Your task to perform on an android device: Open CNN.com Image 0: 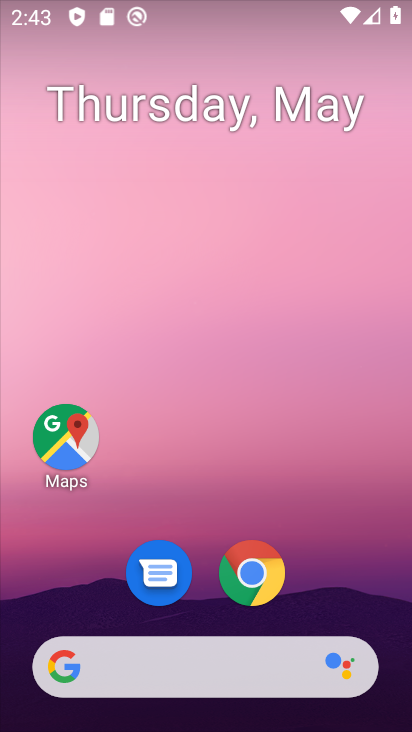
Step 0: click (253, 581)
Your task to perform on an android device: Open CNN.com Image 1: 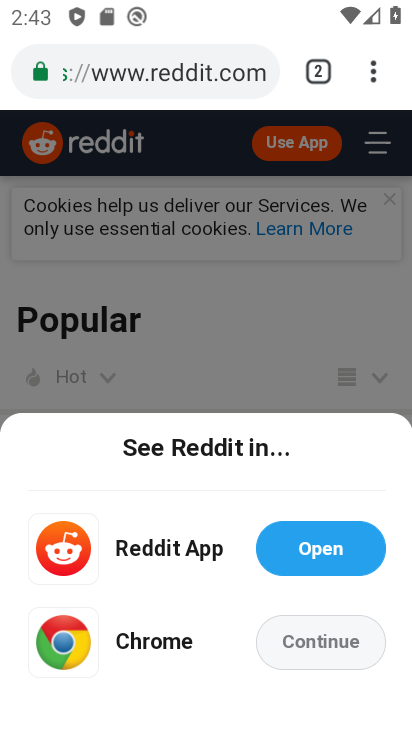
Step 1: click (310, 632)
Your task to perform on an android device: Open CNN.com Image 2: 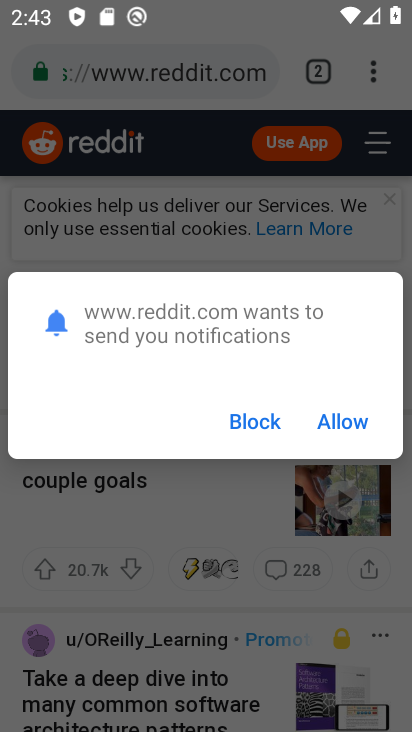
Step 2: click (350, 417)
Your task to perform on an android device: Open CNN.com Image 3: 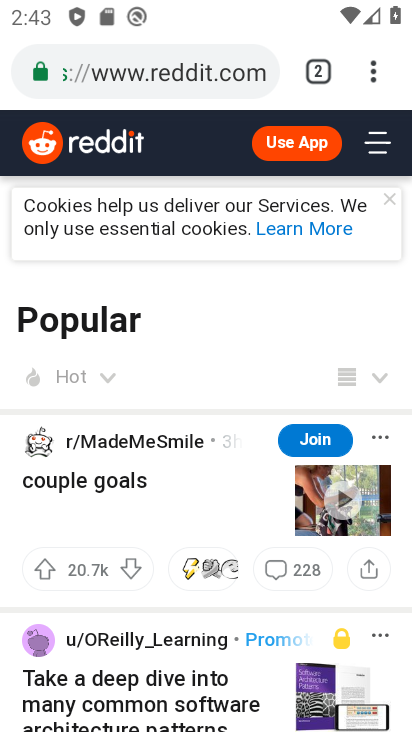
Step 3: click (374, 72)
Your task to perform on an android device: Open CNN.com Image 4: 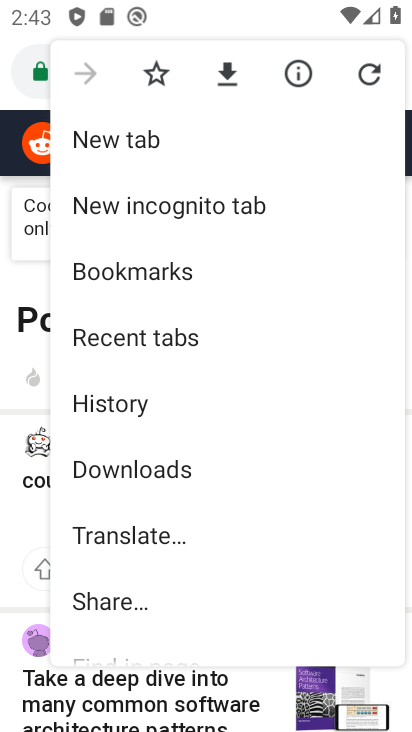
Step 4: click (131, 135)
Your task to perform on an android device: Open CNN.com Image 5: 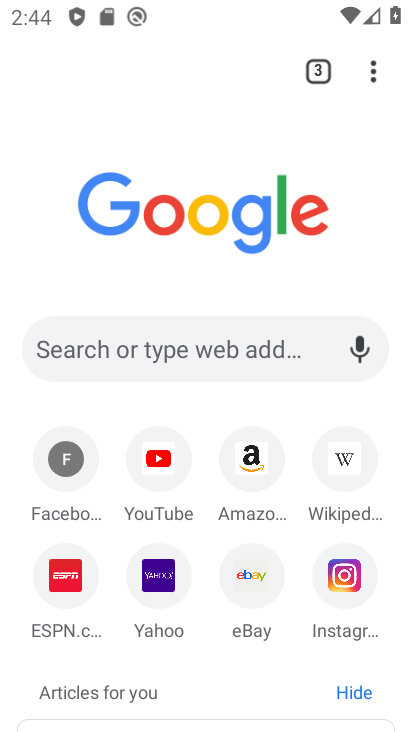
Step 5: click (158, 344)
Your task to perform on an android device: Open CNN.com Image 6: 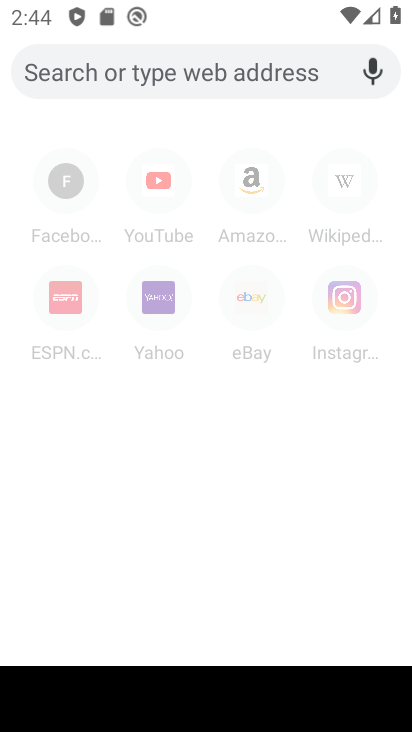
Step 6: type "cnn.com"
Your task to perform on an android device: Open CNN.com Image 7: 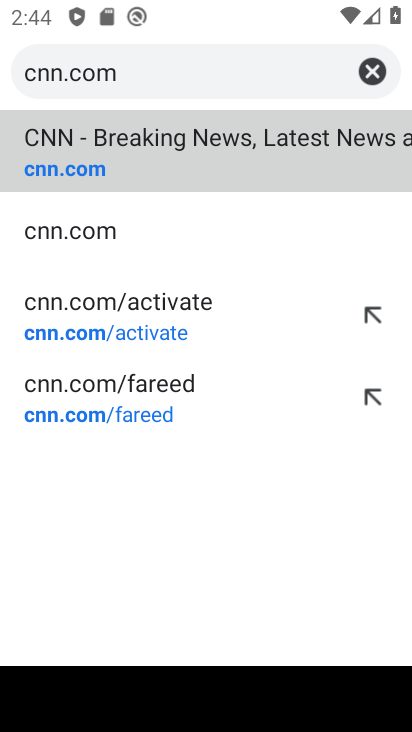
Step 7: click (117, 159)
Your task to perform on an android device: Open CNN.com Image 8: 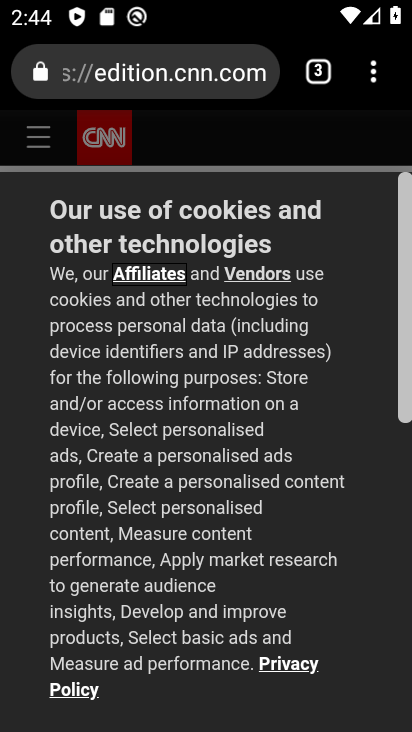
Step 8: task complete